Your task to perform on an android device: Show the shopping cart on walmart.com. Image 0: 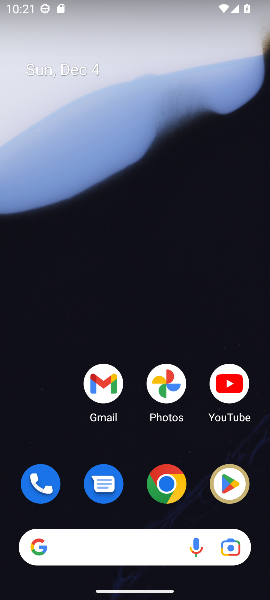
Step 0: click (167, 489)
Your task to perform on an android device: Show the shopping cart on walmart.com. Image 1: 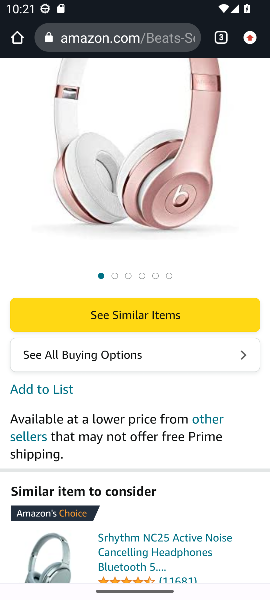
Step 1: click (124, 44)
Your task to perform on an android device: Show the shopping cart on walmart.com. Image 2: 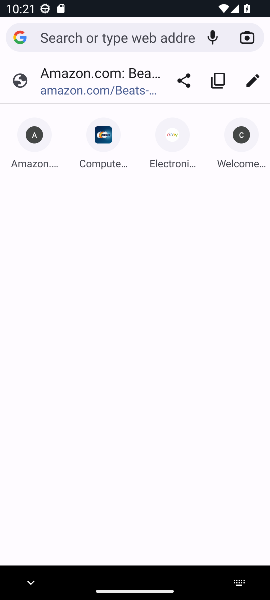
Step 2: type "walmart.com"
Your task to perform on an android device: Show the shopping cart on walmart.com. Image 3: 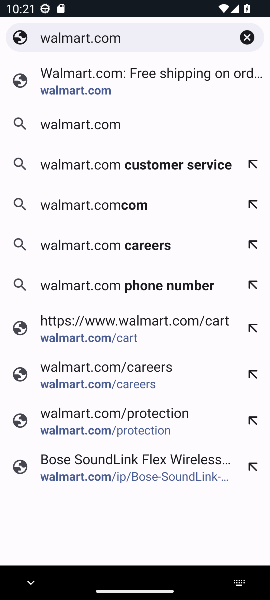
Step 3: click (80, 86)
Your task to perform on an android device: Show the shopping cart on walmart.com. Image 4: 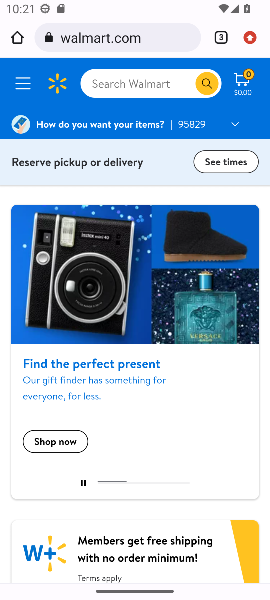
Step 4: click (241, 90)
Your task to perform on an android device: Show the shopping cart on walmart.com. Image 5: 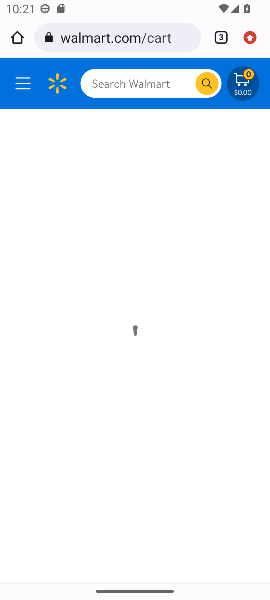
Step 5: task complete